Your task to perform on an android device: Go to Wikipedia Image 0: 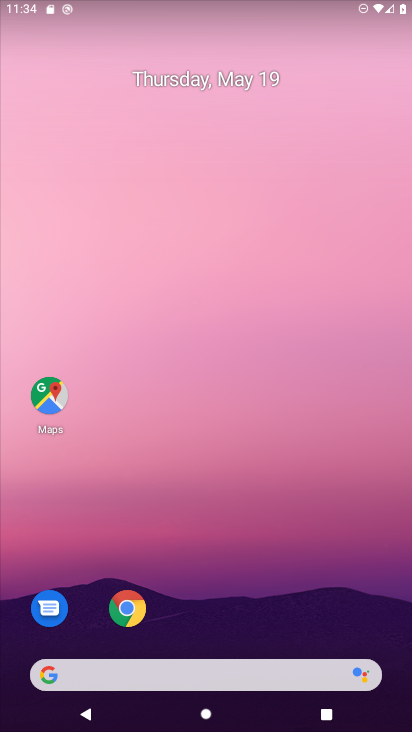
Step 0: press home button
Your task to perform on an android device: Go to Wikipedia Image 1: 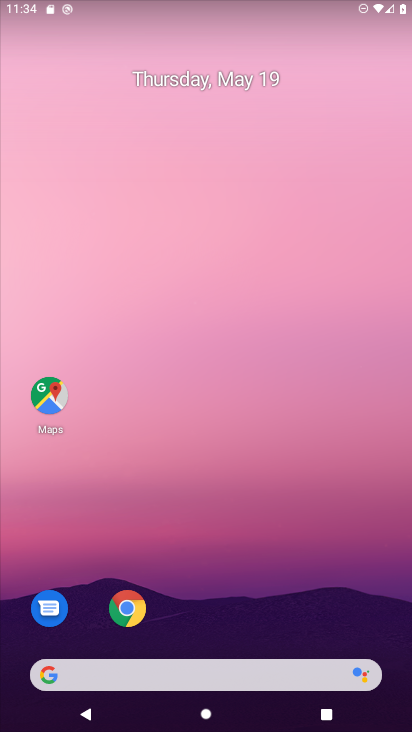
Step 1: click (125, 608)
Your task to perform on an android device: Go to Wikipedia Image 2: 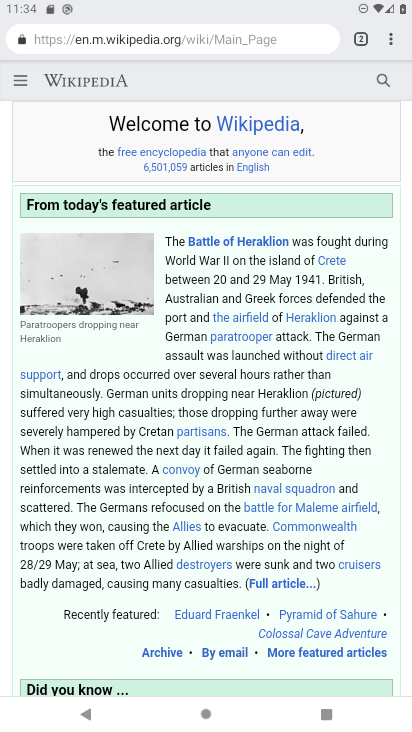
Step 2: task complete